Your task to perform on an android device: turn on wifi Image 0: 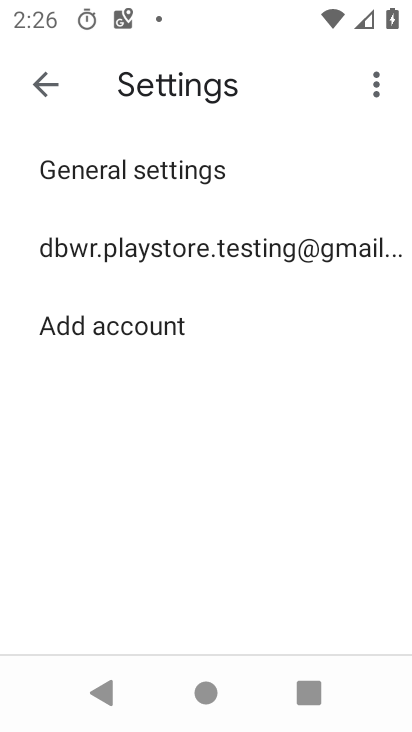
Step 0: press home button
Your task to perform on an android device: turn on wifi Image 1: 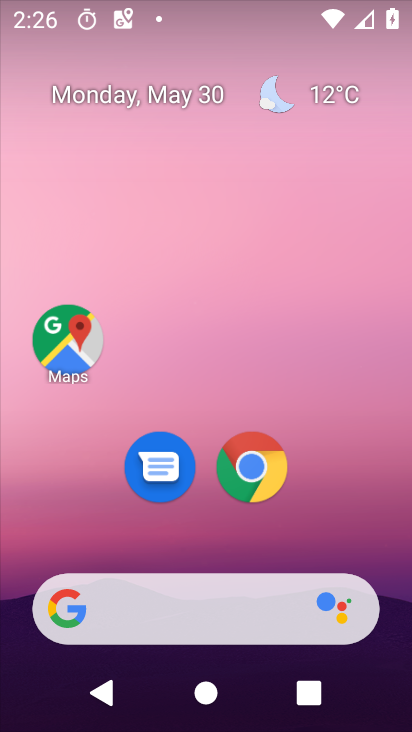
Step 1: drag from (375, 639) to (395, 169)
Your task to perform on an android device: turn on wifi Image 2: 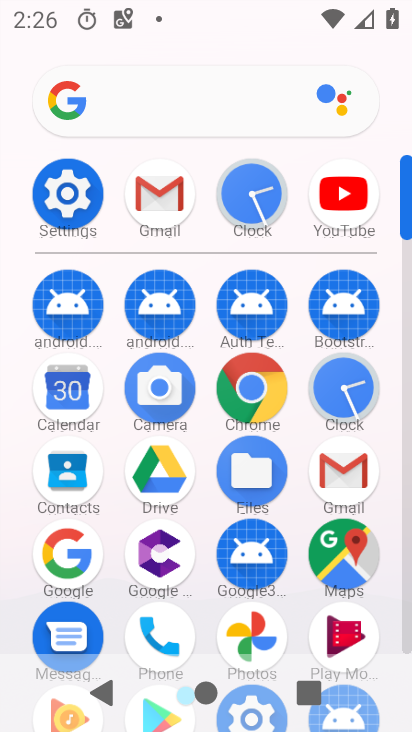
Step 2: click (70, 194)
Your task to perform on an android device: turn on wifi Image 3: 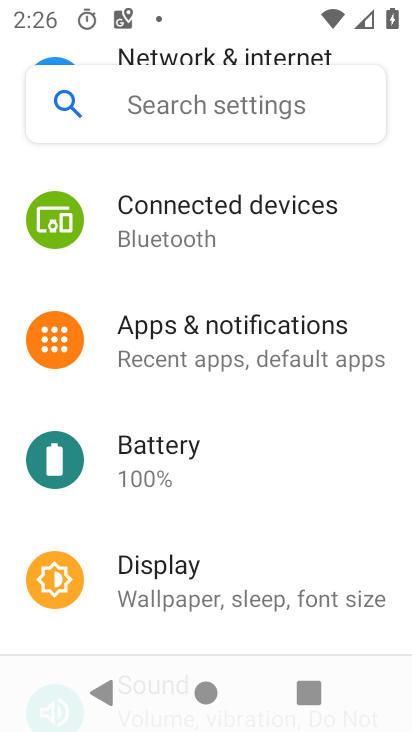
Step 3: drag from (357, 267) to (311, 522)
Your task to perform on an android device: turn on wifi Image 4: 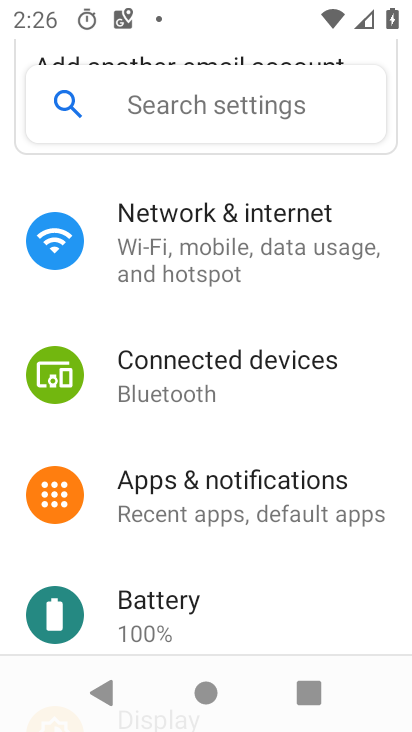
Step 4: click (219, 228)
Your task to perform on an android device: turn on wifi Image 5: 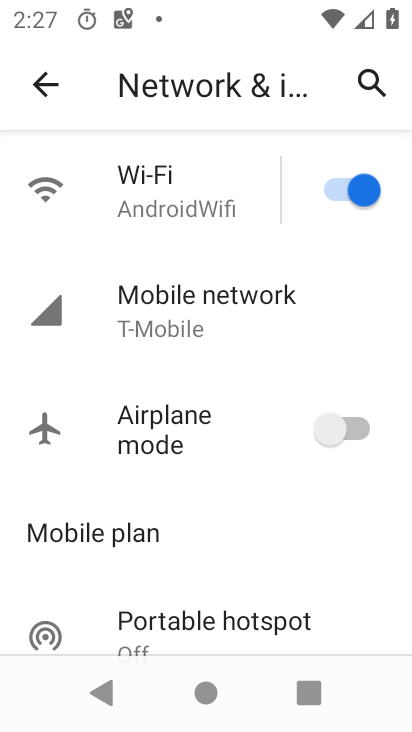
Step 5: task complete